Your task to perform on an android device: Search for seafood restaurants on Google Maps Image 0: 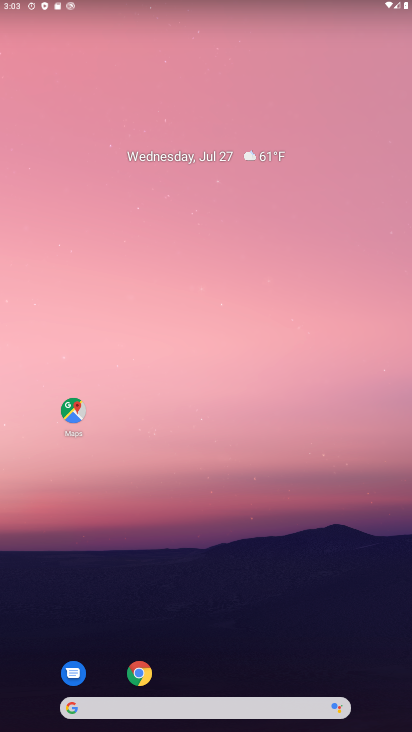
Step 0: click (67, 403)
Your task to perform on an android device: Search for seafood restaurants on Google Maps Image 1: 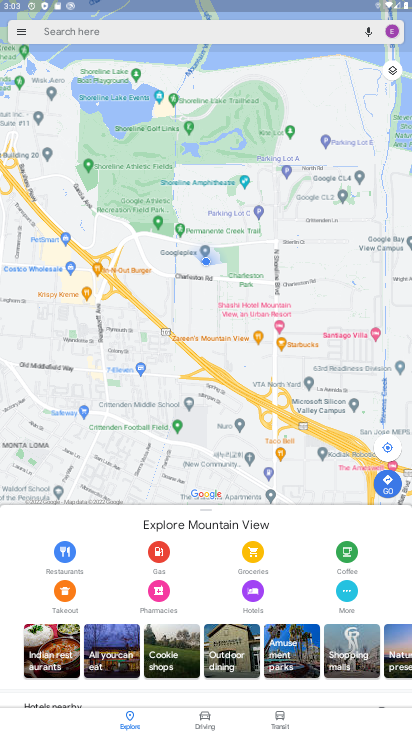
Step 1: click (70, 31)
Your task to perform on an android device: Search for seafood restaurants on Google Maps Image 2: 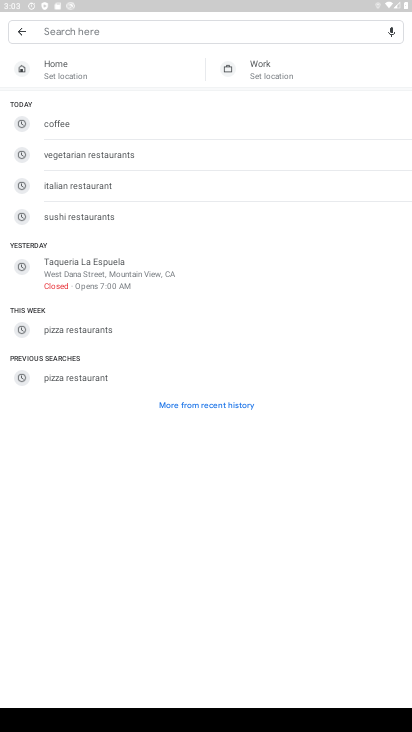
Step 2: type "seafood restaurants"
Your task to perform on an android device: Search for seafood restaurants on Google Maps Image 3: 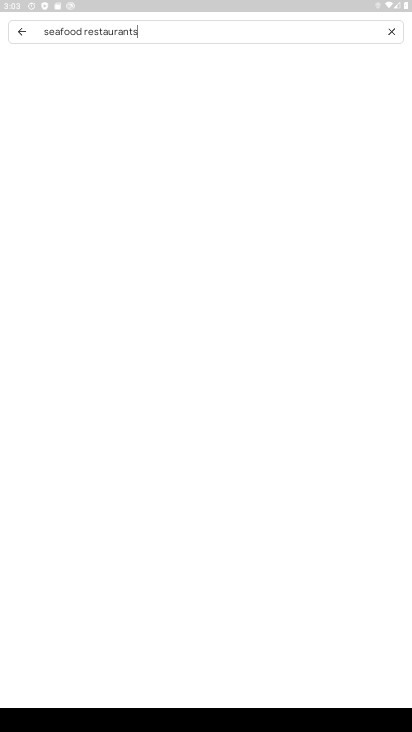
Step 3: type ""
Your task to perform on an android device: Search for seafood restaurants on Google Maps Image 4: 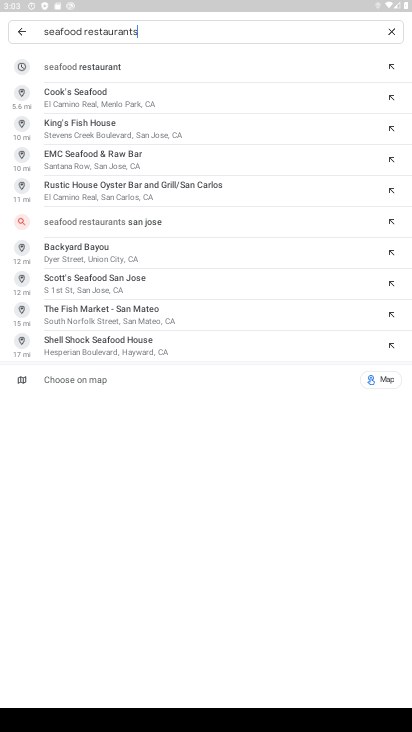
Step 4: click (91, 69)
Your task to perform on an android device: Search for seafood restaurants on Google Maps Image 5: 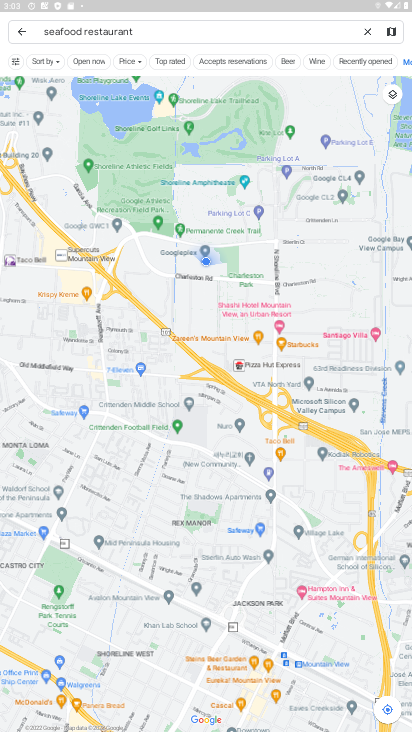
Step 5: task complete